Your task to perform on an android device: How much does the Samsung TV cost? Image 0: 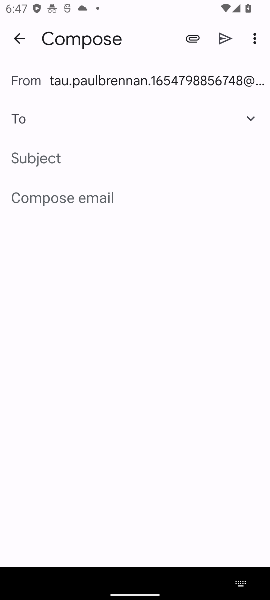
Step 0: press home button
Your task to perform on an android device: How much does the Samsung TV cost? Image 1: 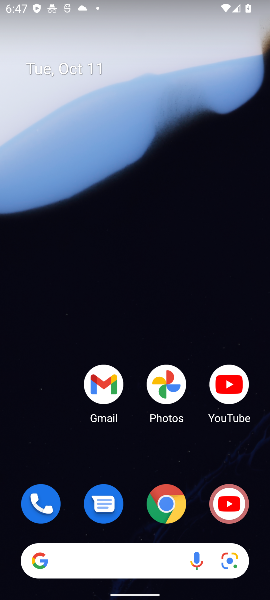
Step 1: click (138, 563)
Your task to perform on an android device: How much does the Samsung TV cost? Image 2: 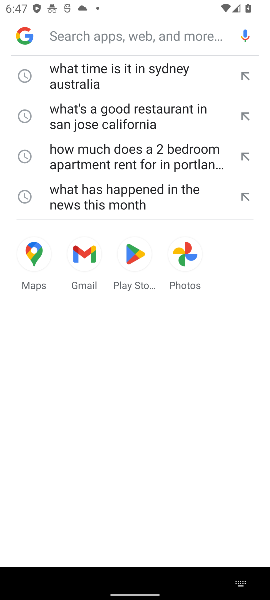
Step 2: click (82, 39)
Your task to perform on an android device: How much does the Samsung TV cost? Image 3: 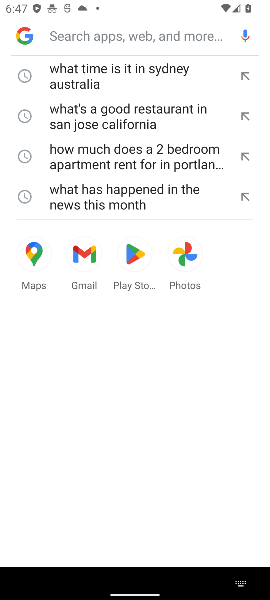
Step 3: type "How much does the Samsung TV cost?"
Your task to perform on an android device: How much does the Samsung TV cost? Image 4: 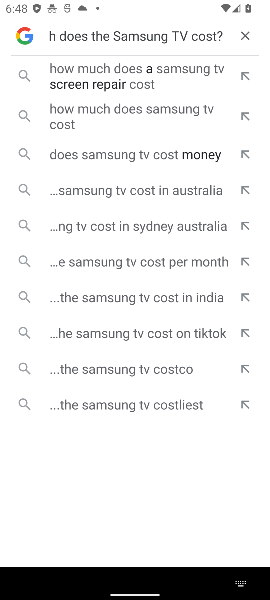
Step 4: click (134, 119)
Your task to perform on an android device: How much does the Samsung TV cost? Image 5: 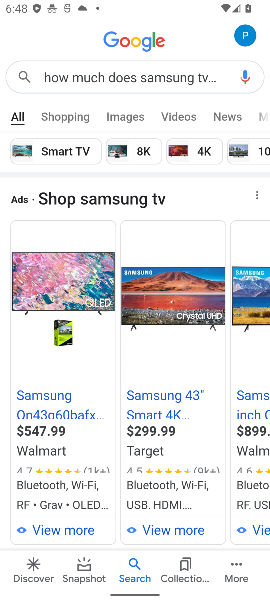
Step 5: task complete